Your task to perform on an android device: turn on priority inbox in the gmail app Image 0: 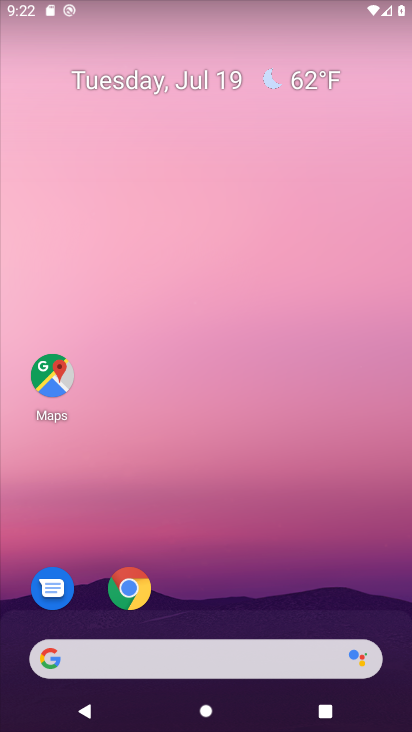
Step 0: drag from (201, 479) to (201, 50)
Your task to perform on an android device: turn on priority inbox in the gmail app Image 1: 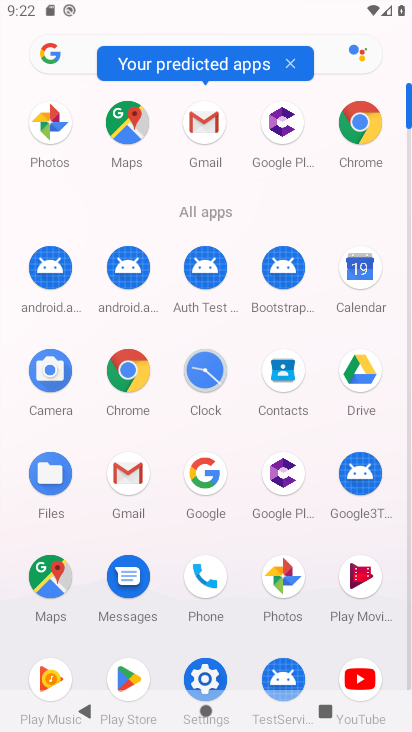
Step 1: click (204, 124)
Your task to perform on an android device: turn on priority inbox in the gmail app Image 2: 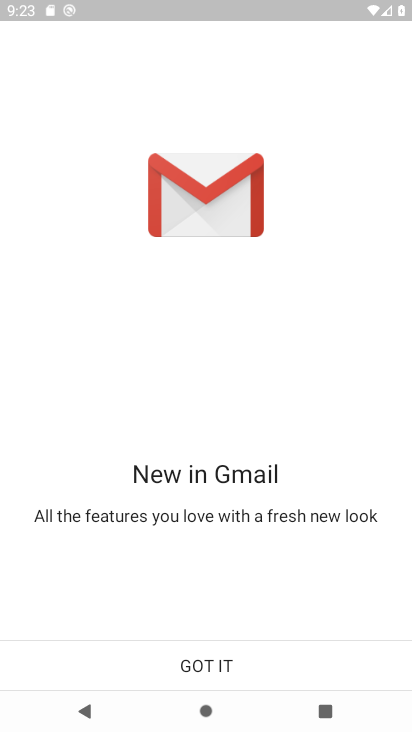
Step 2: click (194, 651)
Your task to perform on an android device: turn on priority inbox in the gmail app Image 3: 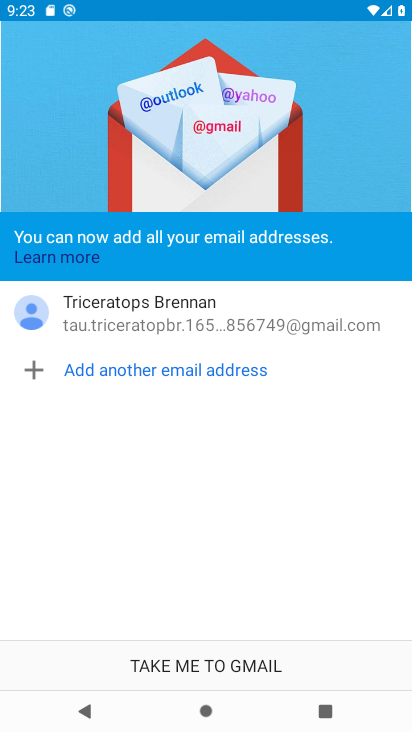
Step 3: click (194, 651)
Your task to perform on an android device: turn on priority inbox in the gmail app Image 4: 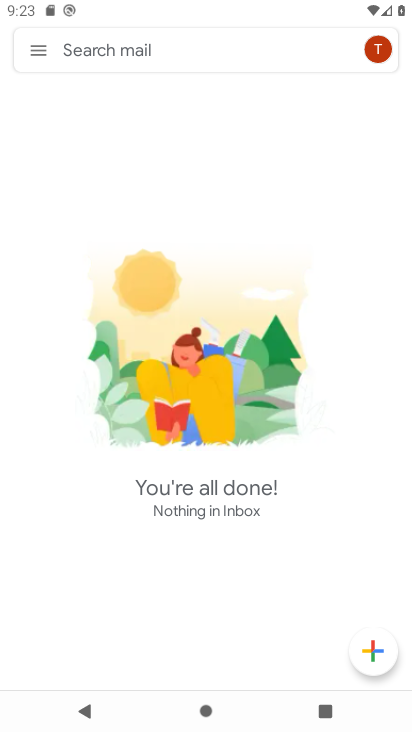
Step 4: click (35, 45)
Your task to perform on an android device: turn on priority inbox in the gmail app Image 5: 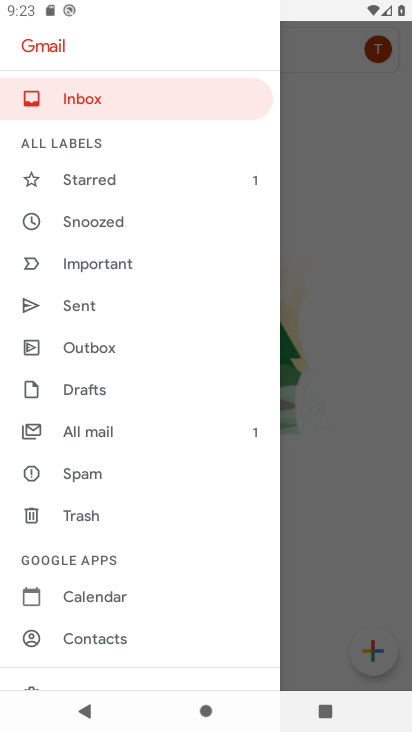
Step 5: drag from (127, 567) to (123, 366)
Your task to perform on an android device: turn on priority inbox in the gmail app Image 6: 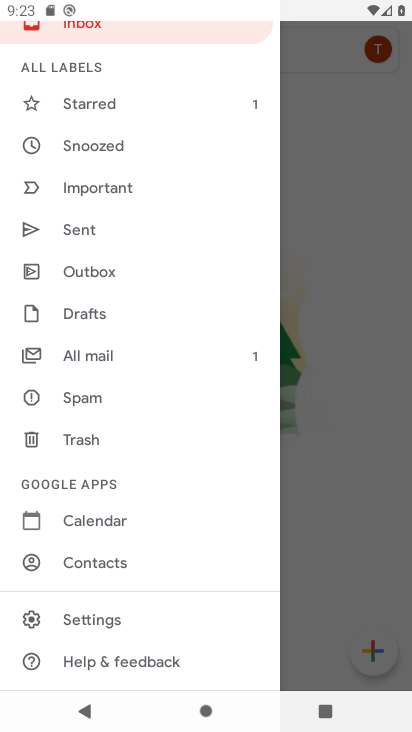
Step 6: click (89, 620)
Your task to perform on an android device: turn on priority inbox in the gmail app Image 7: 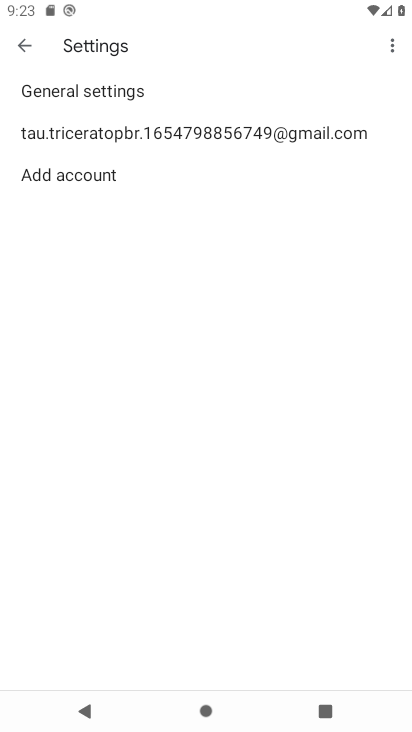
Step 7: click (112, 138)
Your task to perform on an android device: turn on priority inbox in the gmail app Image 8: 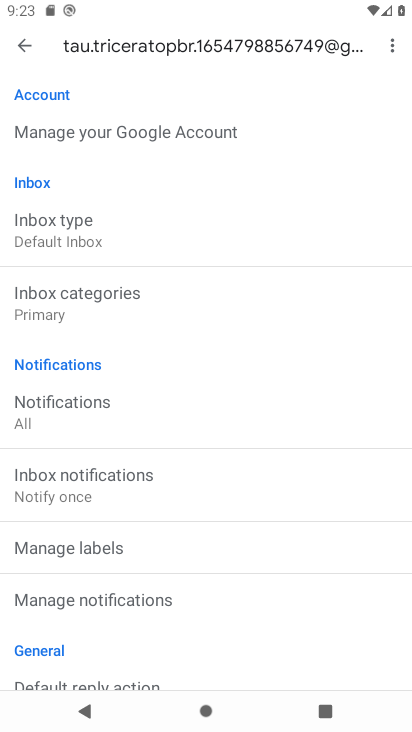
Step 8: click (39, 244)
Your task to perform on an android device: turn on priority inbox in the gmail app Image 9: 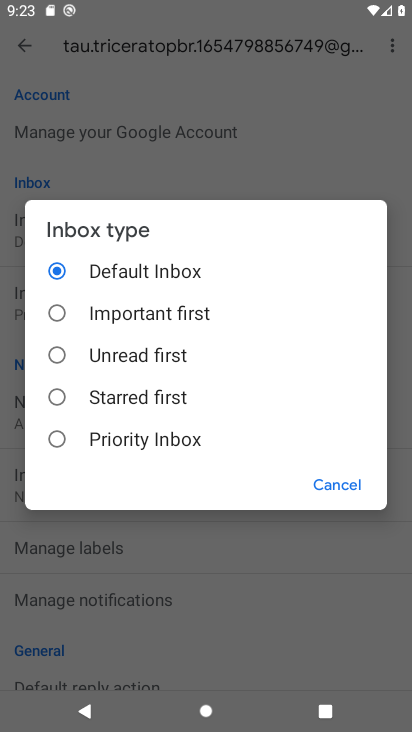
Step 9: click (67, 438)
Your task to perform on an android device: turn on priority inbox in the gmail app Image 10: 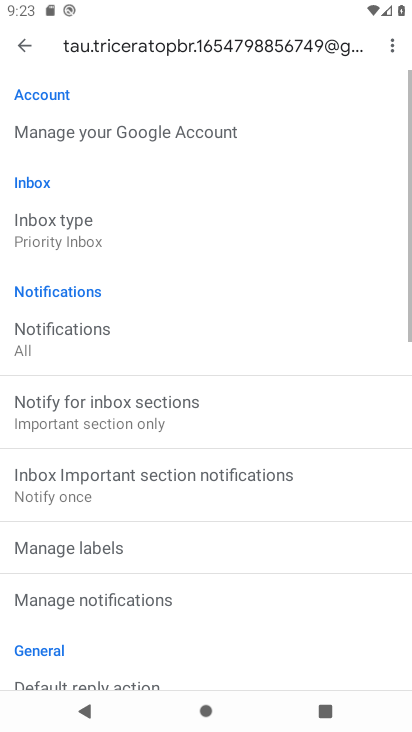
Step 10: task complete